Your task to perform on an android device: Is it going to rain this weekend? Image 0: 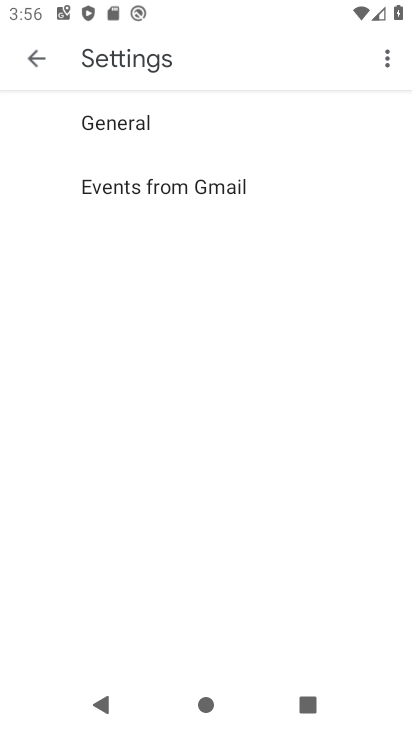
Step 0: press home button
Your task to perform on an android device: Is it going to rain this weekend? Image 1: 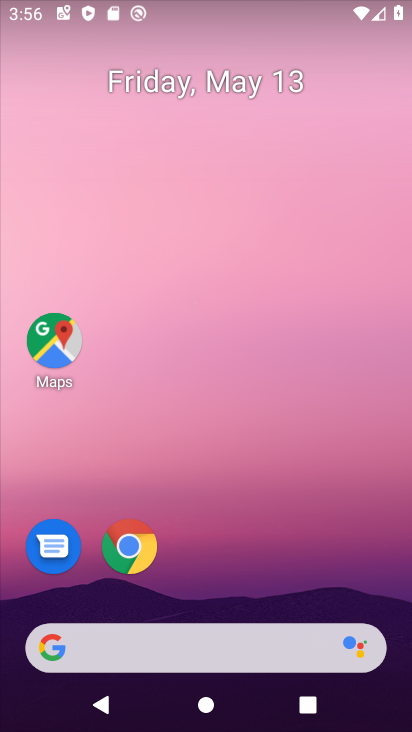
Step 1: drag from (247, 314) to (218, 5)
Your task to perform on an android device: Is it going to rain this weekend? Image 2: 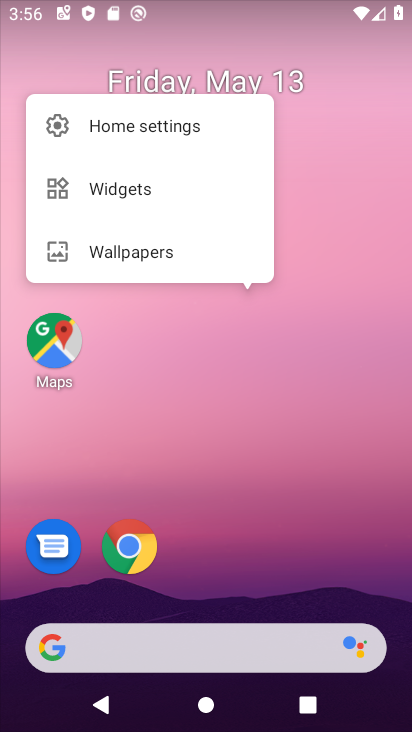
Step 2: click (209, 633)
Your task to perform on an android device: Is it going to rain this weekend? Image 3: 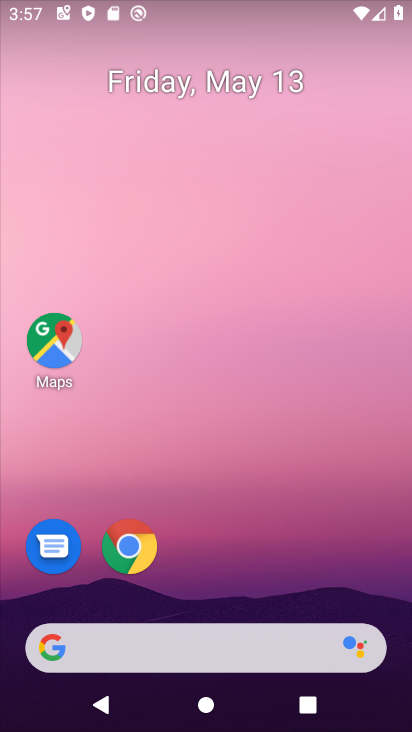
Step 3: click (205, 639)
Your task to perform on an android device: Is it going to rain this weekend? Image 4: 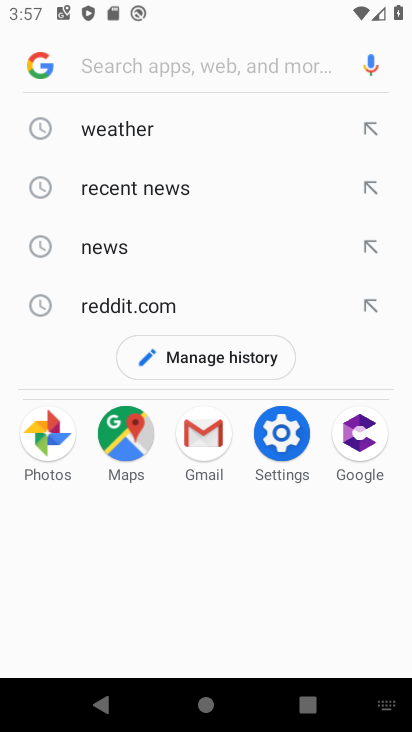
Step 4: click (112, 135)
Your task to perform on an android device: Is it going to rain this weekend? Image 5: 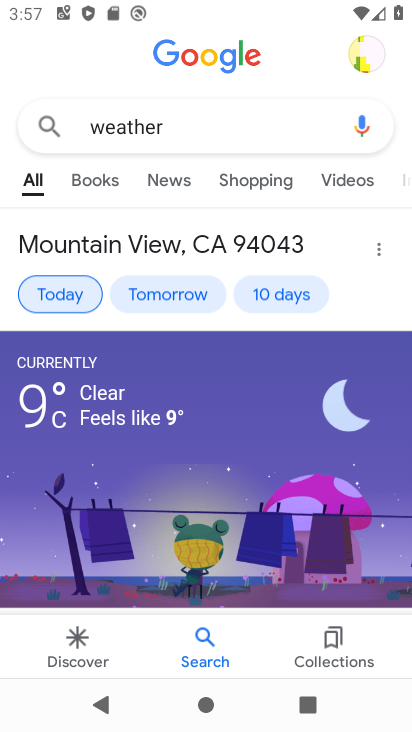
Step 5: task complete